Your task to perform on an android device: Go to sound settings Image 0: 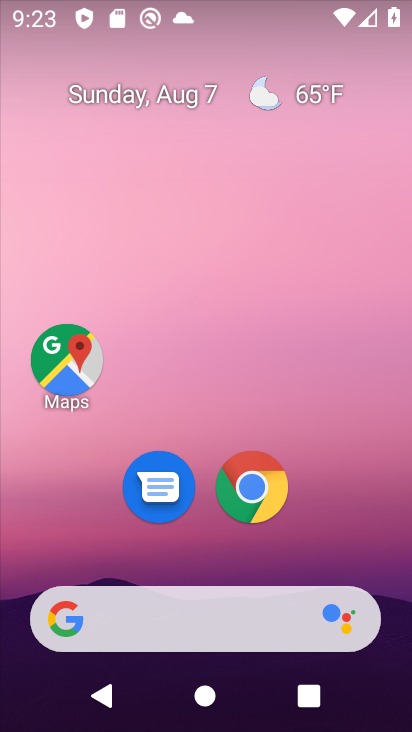
Step 0: drag from (398, 722) to (277, 24)
Your task to perform on an android device: Go to sound settings Image 1: 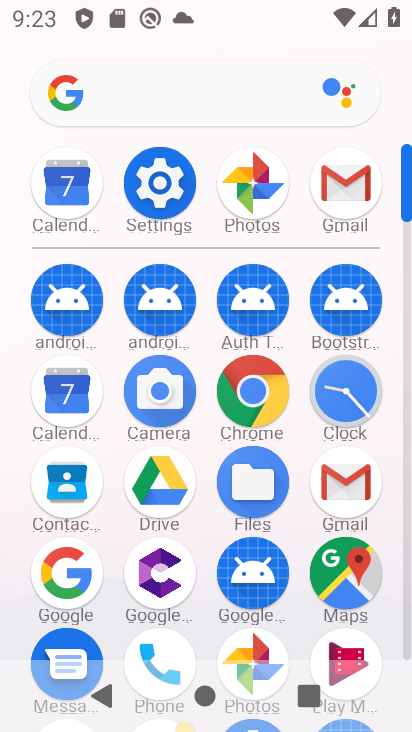
Step 1: click (163, 174)
Your task to perform on an android device: Go to sound settings Image 2: 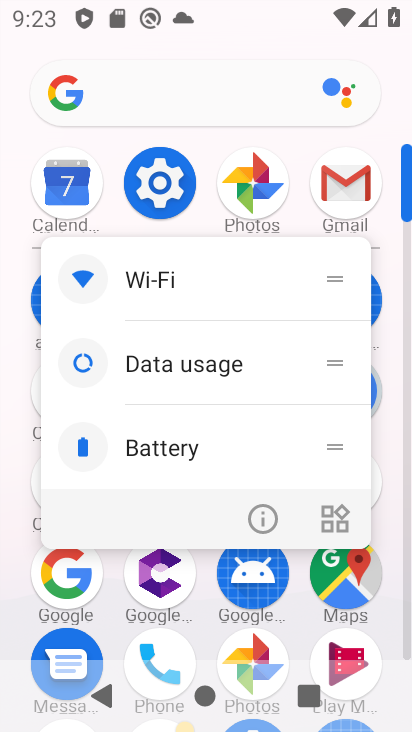
Step 2: click (166, 210)
Your task to perform on an android device: Go to sound settings Image 3: 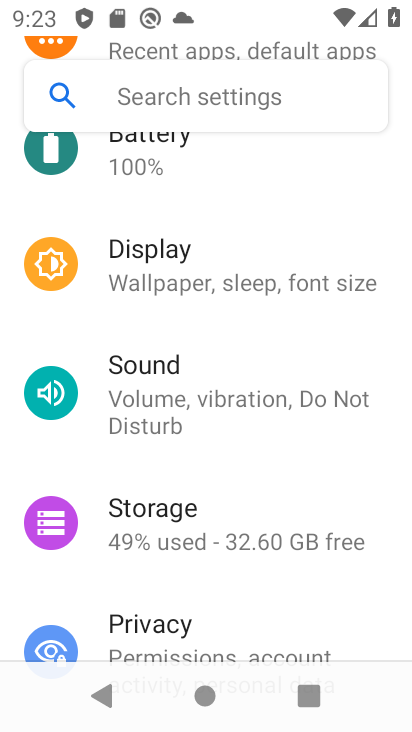
Step 3: click (140, 393)
Your task to perform on an android device: Go to sound settings Image 4: 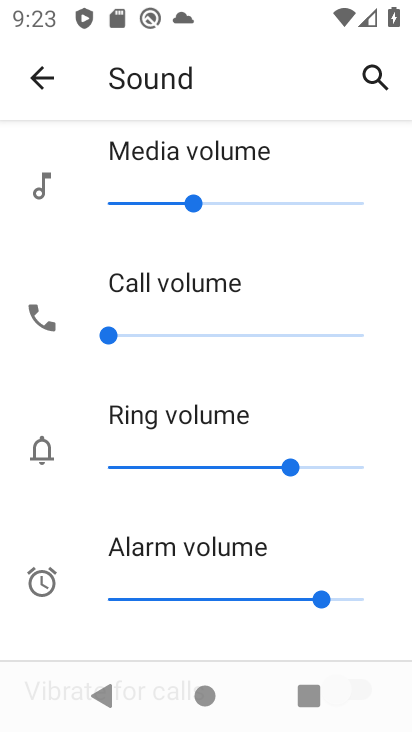
Step 4: drag from (251, 591) to (228, 128)
Your task to perform on an android device: Go to sound settings Image 5: 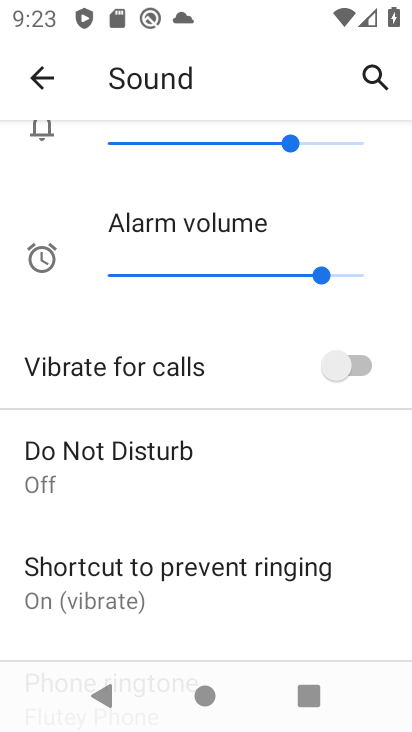
Step 5: drag from (225, 632) to (233, 233)
Your task to perform on an android device: Go to sound settings Image 6: 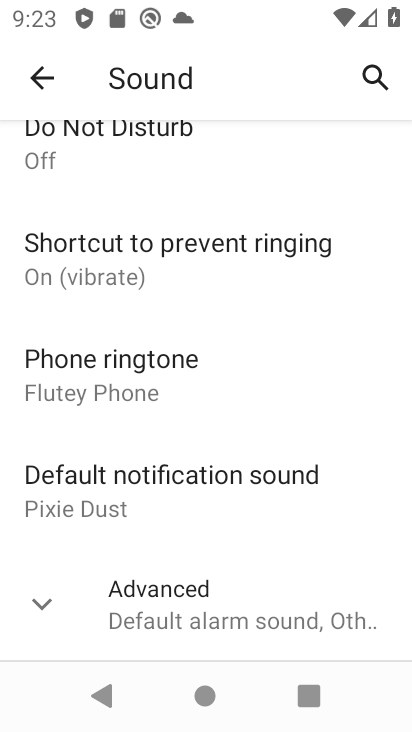
Step 6: click (34, 607)
Your task to perform on an android device: Go to sound settings Image 7: 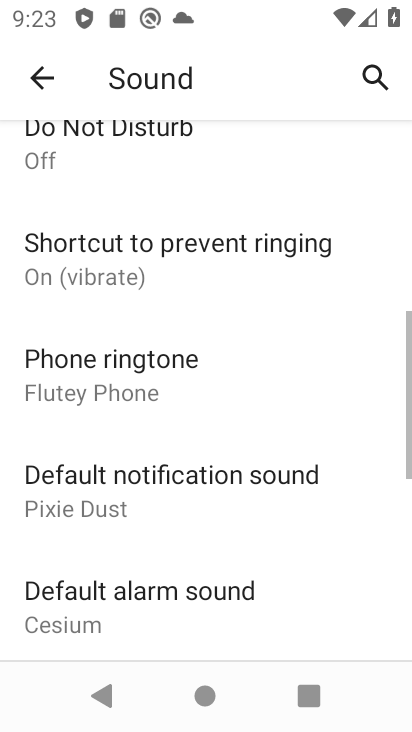
Step 7: task complete